Your task to perform on an android device: Open display settings Image 0: 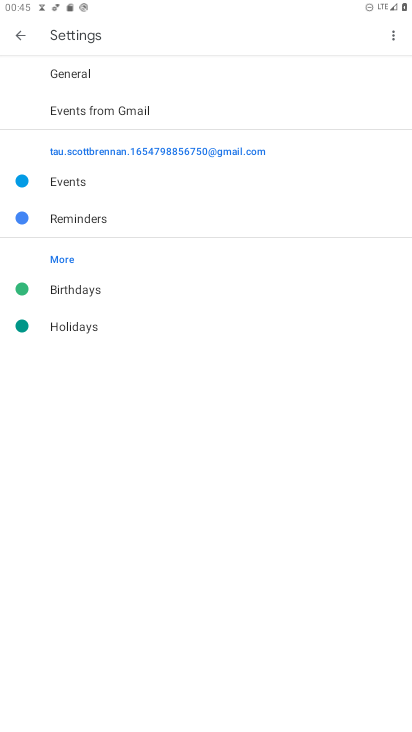
Step 0: press home button
Your task to perform on an android device: Open display settings Image 1: 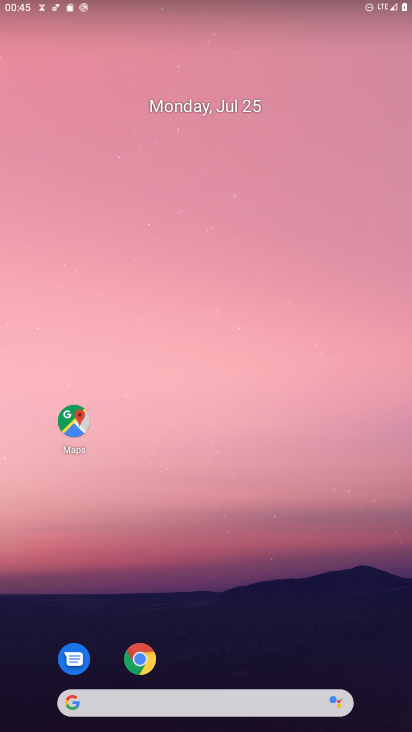
Step 1: drag from (171, 641) to (204, 282)
Your task to perform on an android device: Open display settings Image 2: 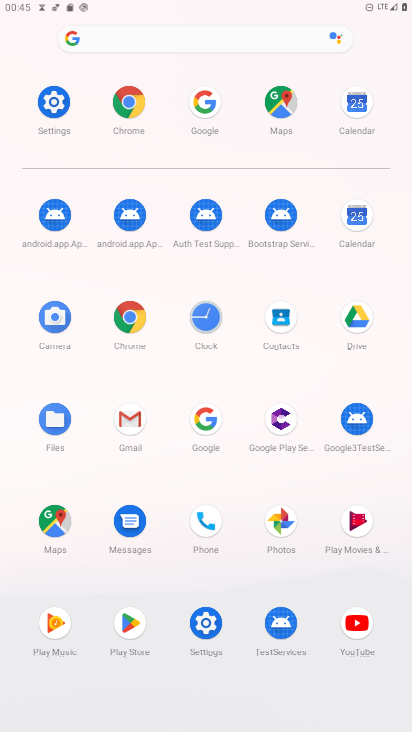
Step 2: click (55, 100)
Your task to perform on an android device: Open display settings Image 3: 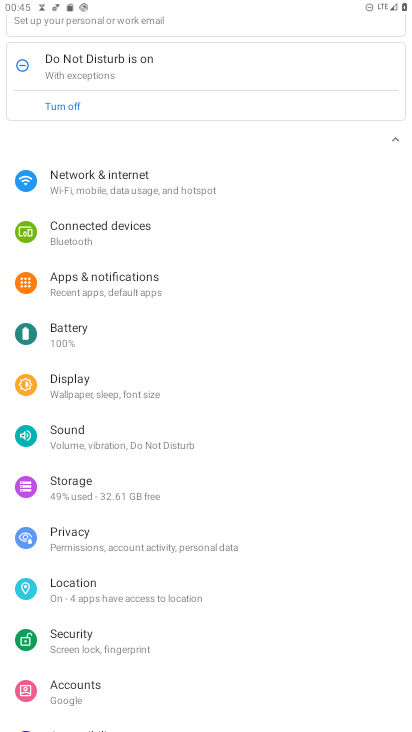
Step 3: click (91, 392)
Your task to perform on an android device: Open display settings Image 4: 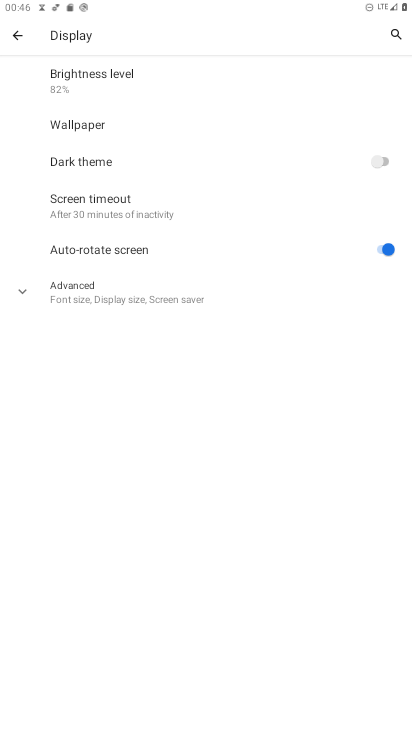
Step 4: task complete